Your task to perform on an android device: check android version Image 0: 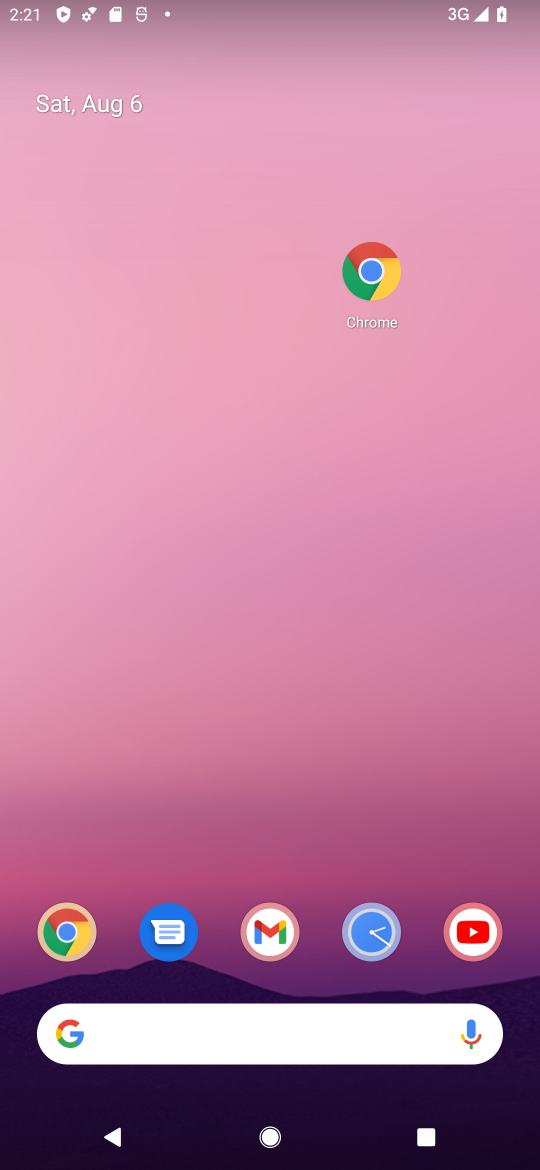
Step 0: drag from (206, 972) to (252, 78)
Your task to perform on an android device: check android version Image 1: 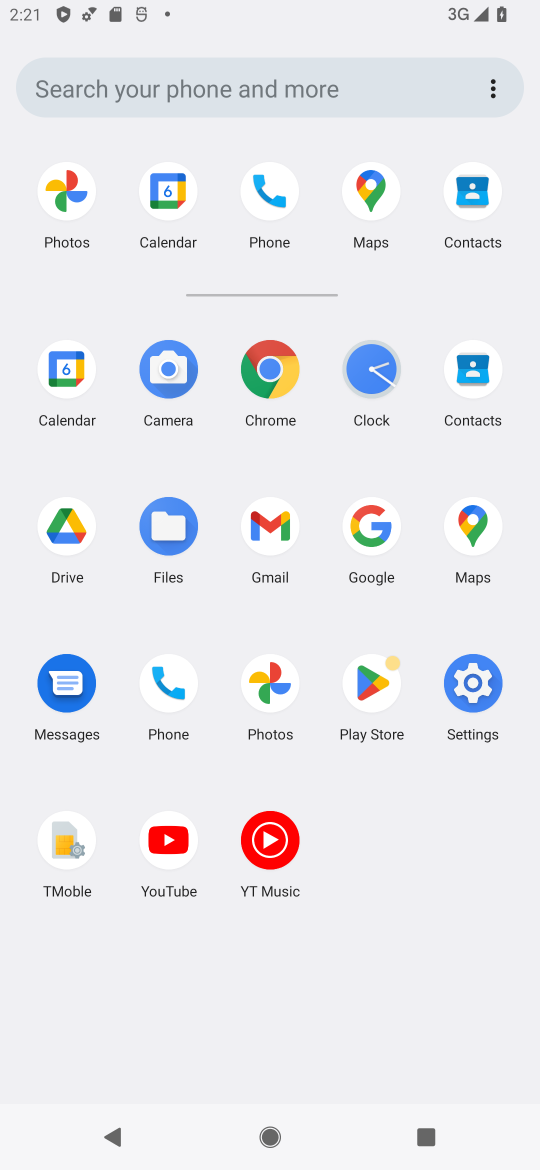
Step 1: click (483, 684)
Your task to perform on an android device: check android version Image 2: 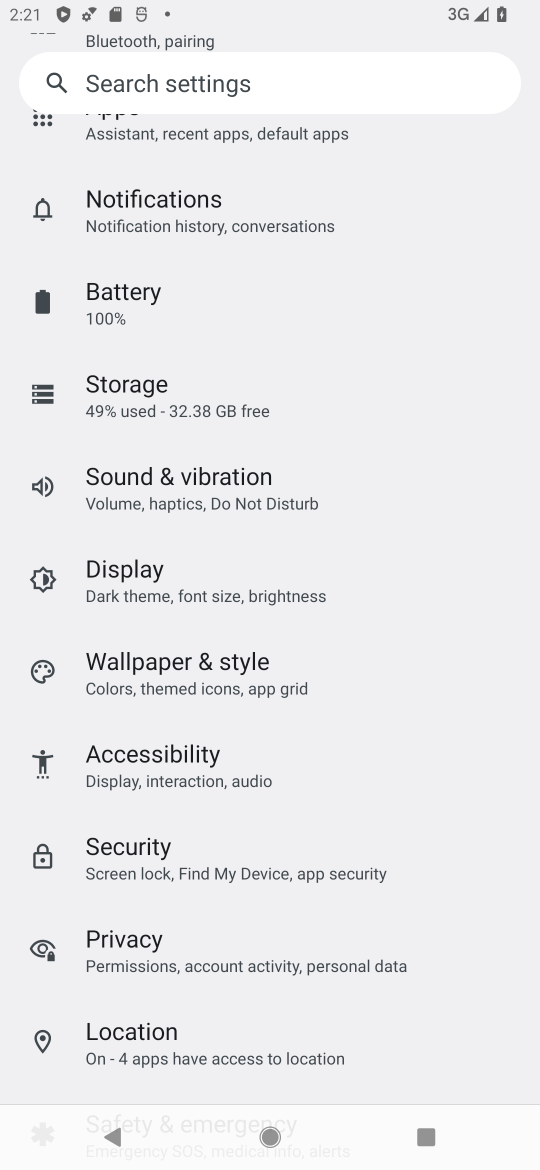
Step 2: drag from (365, 1018) to (296, 207)
Your task to perform on an android device: check android version Image 3: 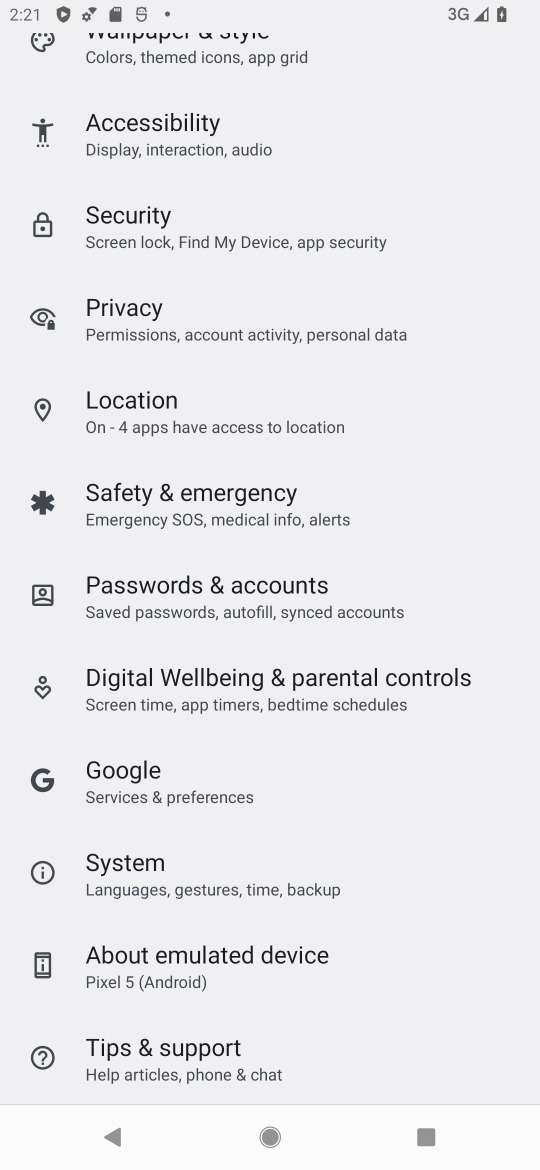
Step 3: click (206, 943)
Your task to perform on an android device: check android version Image 4: 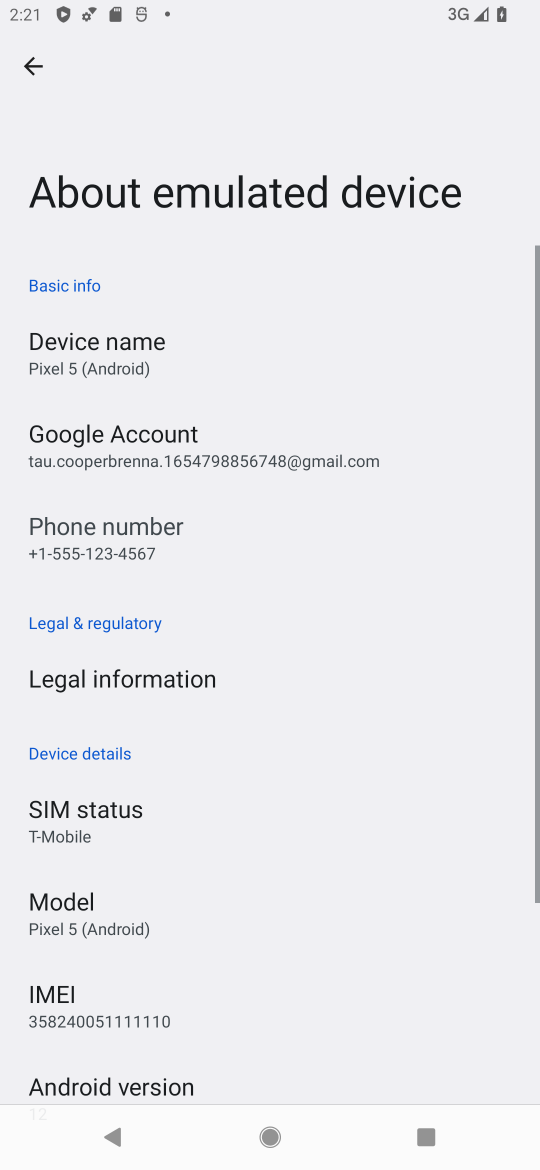
Step 4: drag from (232, 832) to (215, 240)
Your task to perform on an android device: check android version Image 5: 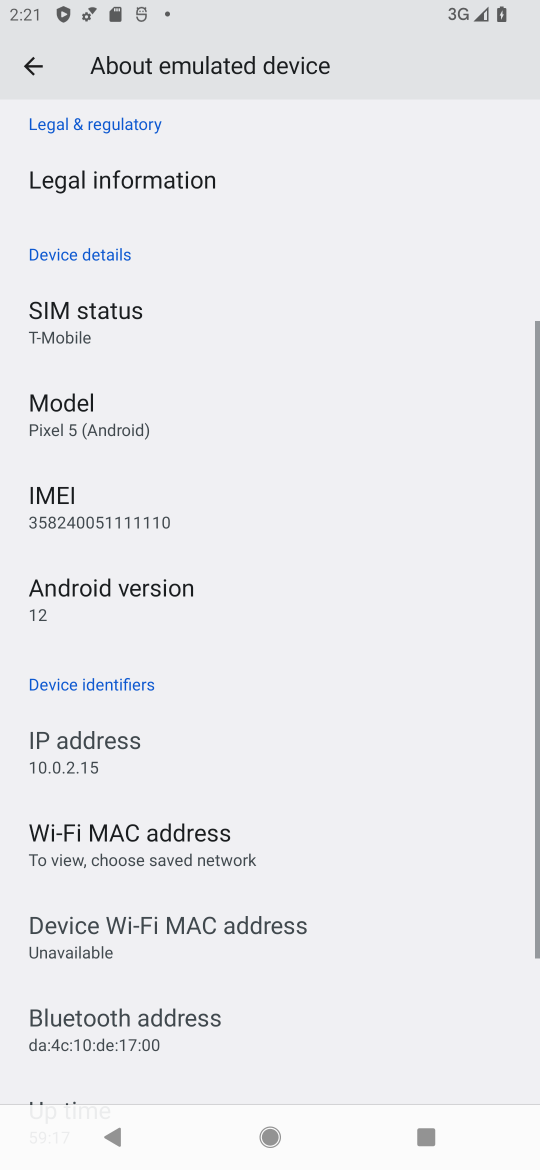
Step 5: click (77, 579)
Your task to perform on an android device: check android version Image 6: 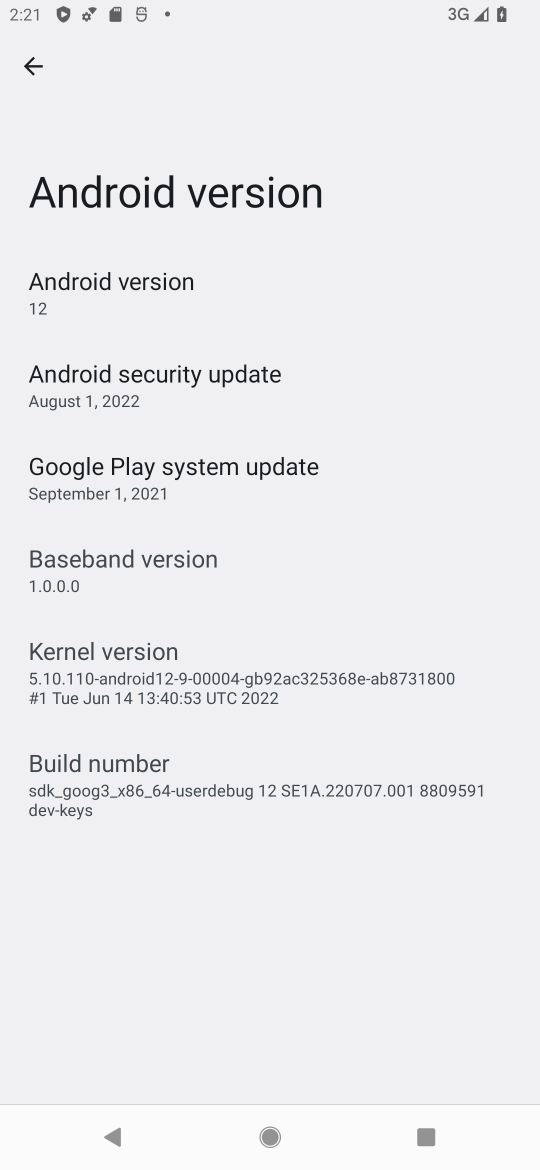
Step 6: click (110, 268)
Your task to perform on an android device: check android version Image 7: 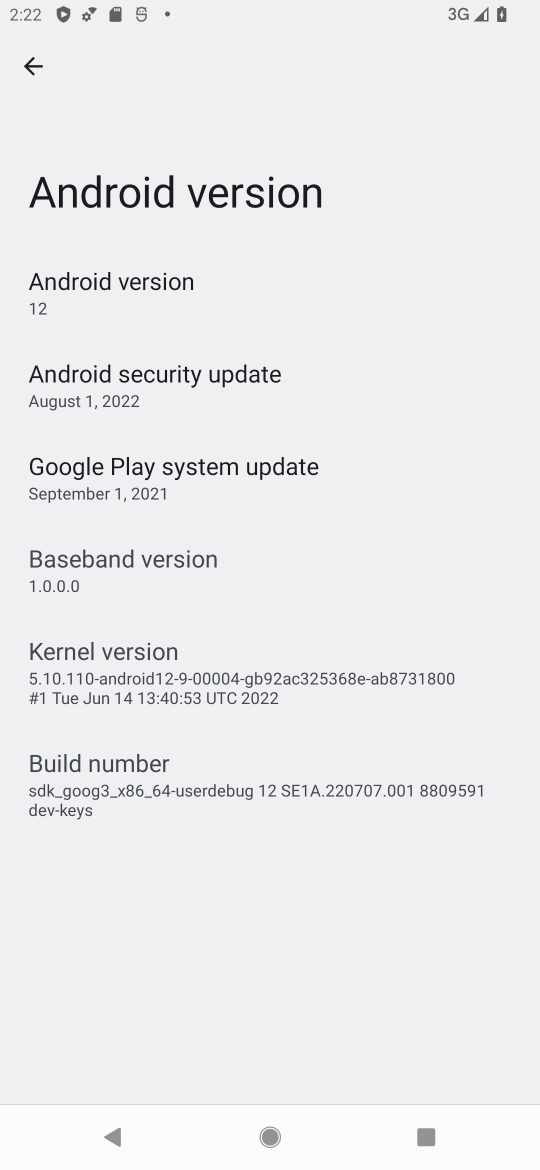
Step 7: task complete